Your task to perform on an android device: open app "Venmo" (install if not already installed) and go to login screen Image 0: 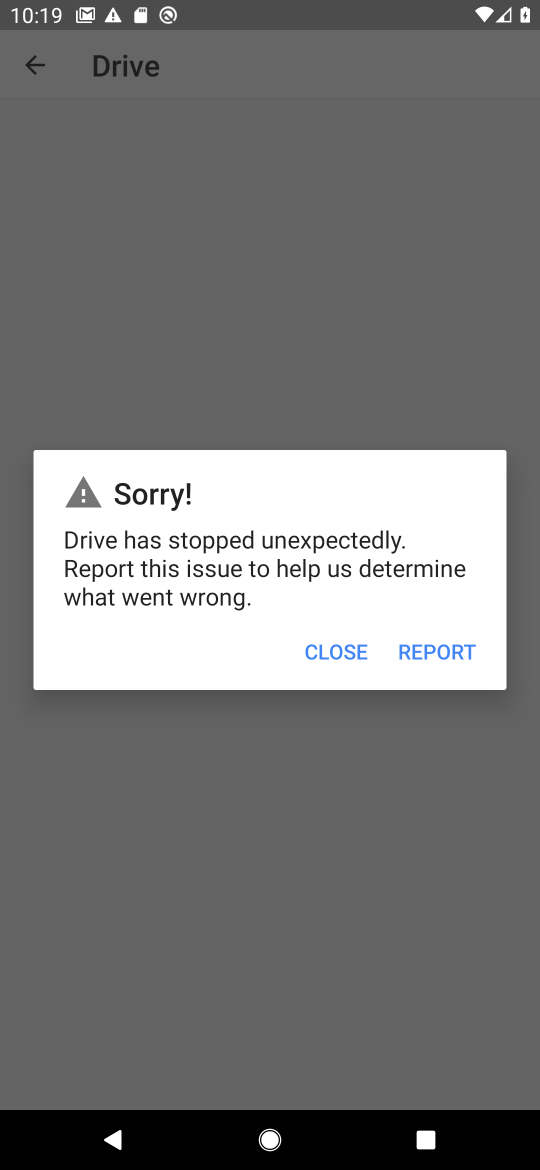
Step 0: press back button
Your task to perform on an android device: open app "Venmo" (install if not already installed) and go to login screen Image 1: 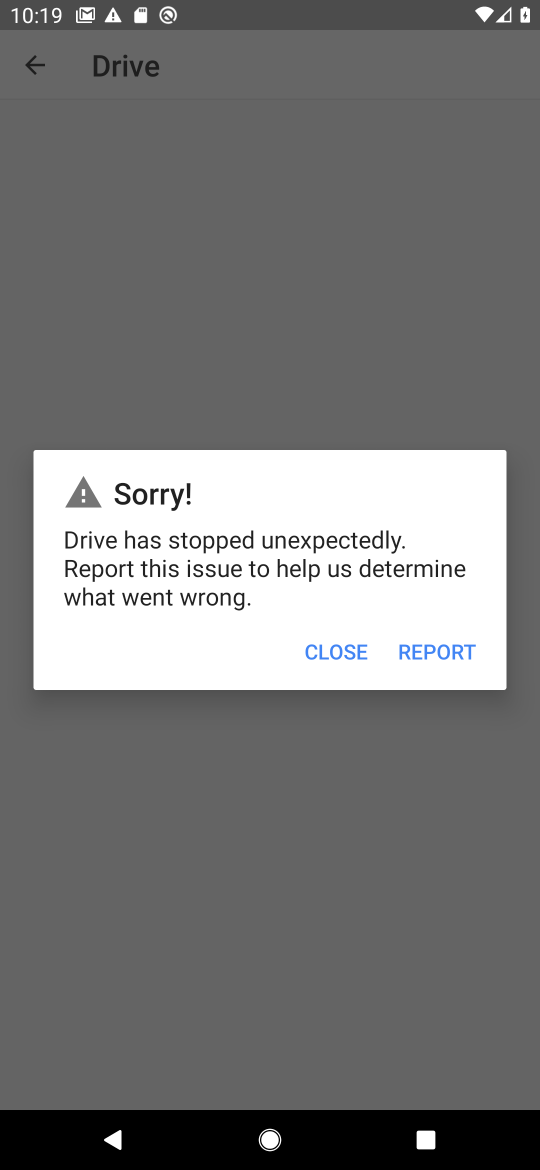
Step 1: press back button
Your task to perform on an android device: open app "Venmo" (install if not already installed) and go to login screen Image 2: 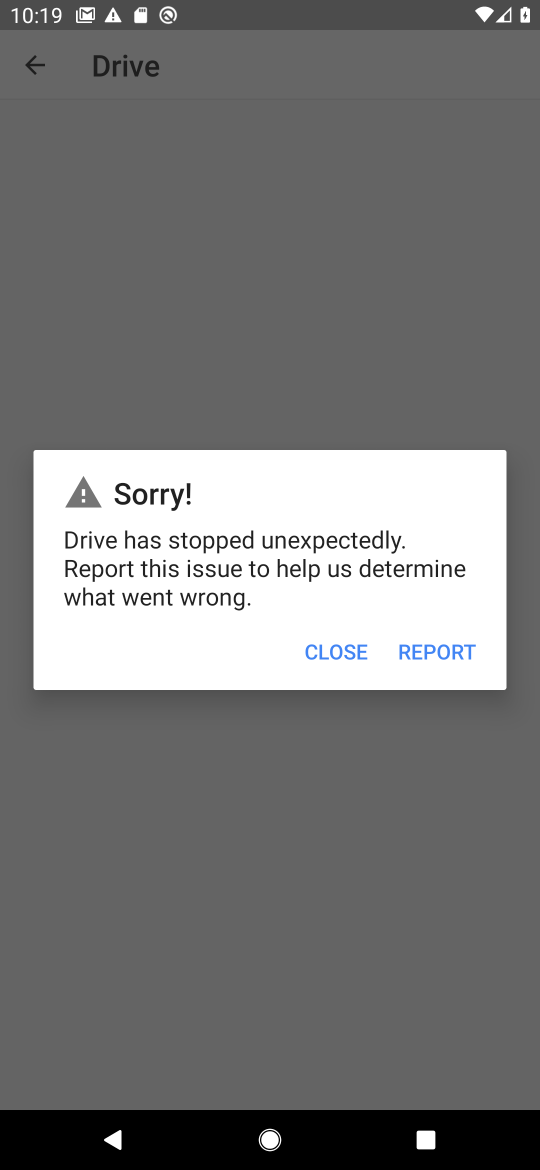
Step 2: press home button
Your task to perform on an android device: open app "Venmo" (install if not already installed) and go to login screen Image 3: 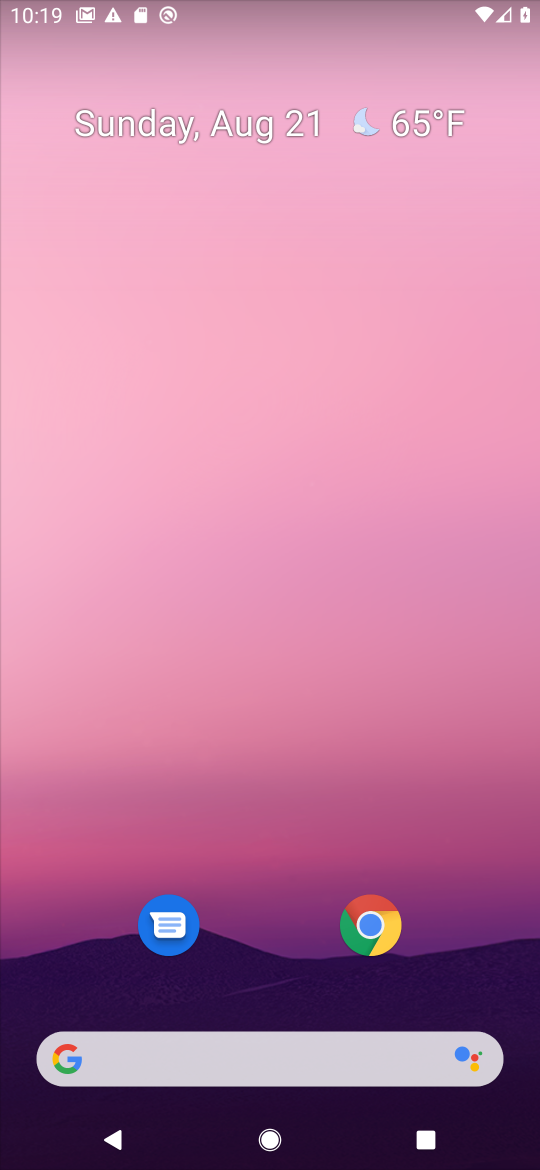
Step 3: drag from (281, 970) to (372, 94)
Your task to perform on an android device: open app "Venmo" (install if not already installed) and go to login screen Image 4: 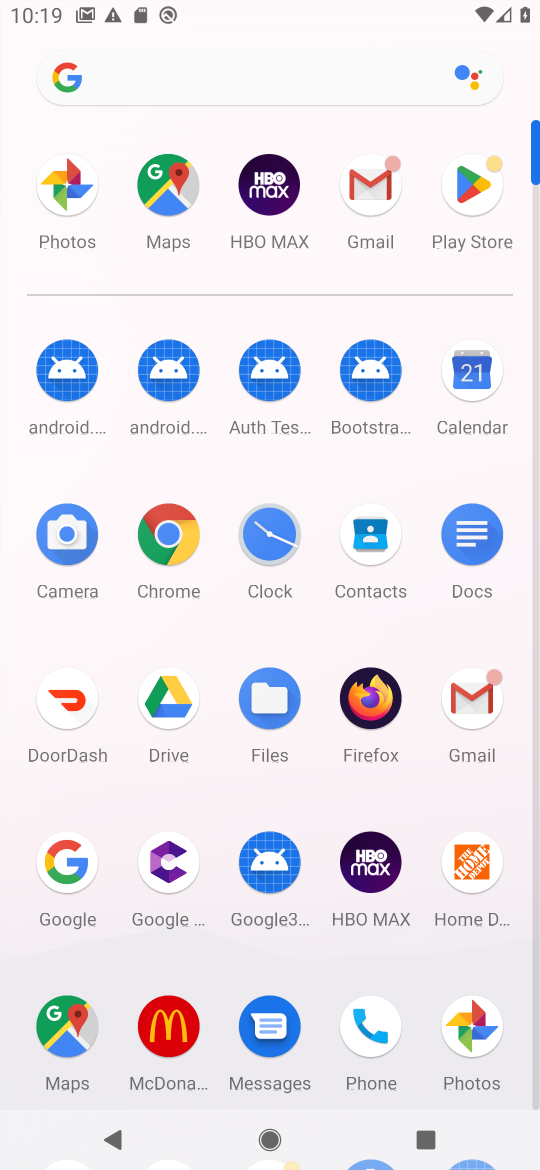
Step 4: click (464, 170)
Your task to perform on an android device: open app "Venmo" (install if not already installed) and go to login screen Image 5: 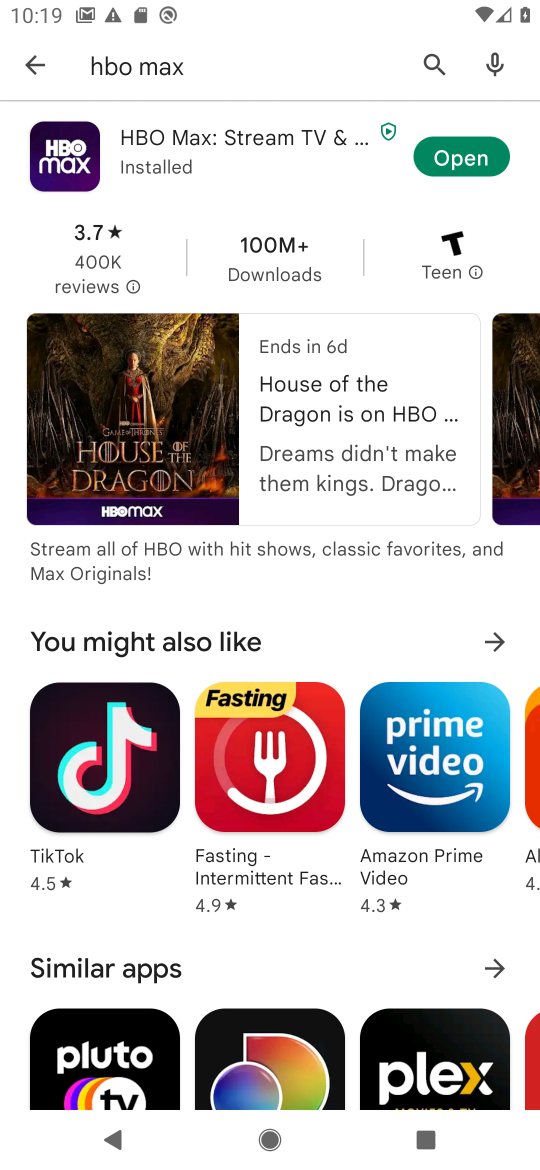
Step 5: click (429, 66)
Your task to perform on an android device: open app "Venmo" (install if not already installed) and go to login screen Image 6: 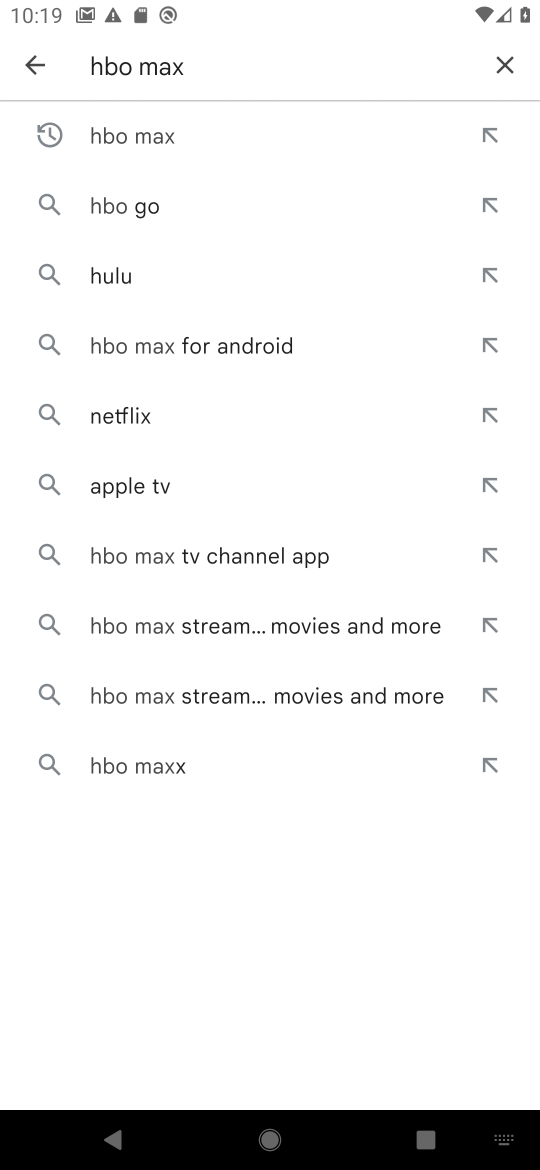
Step 6: click (516, 66)
Your task to perform on an android device: open app "Venmo" (install if not already installed) and go to login screen Image 7: 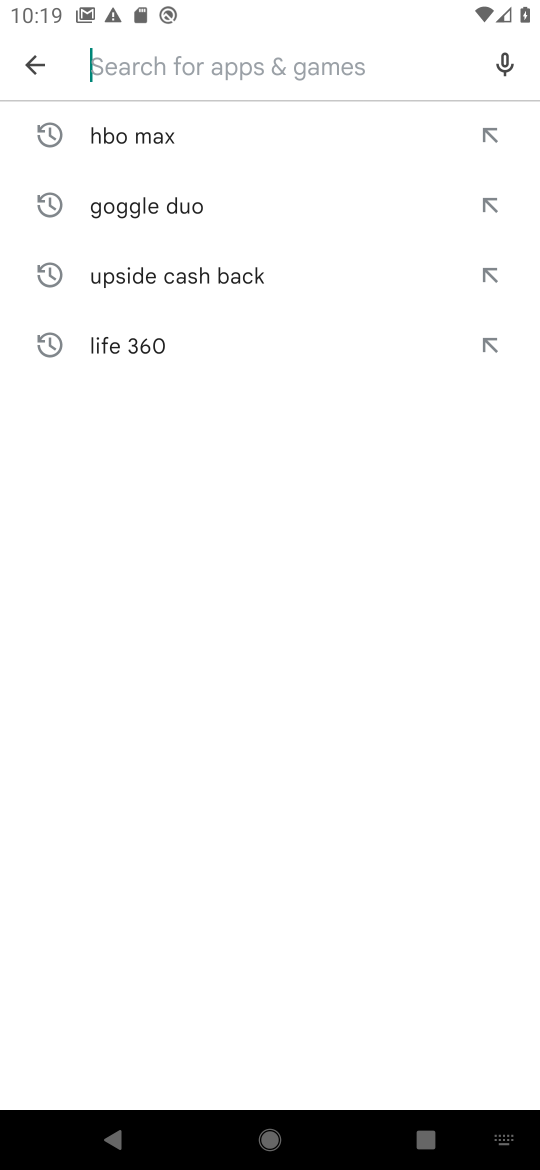
Step 7: click (215, 65)
Your task to perform on an android device: open app "Venmo" (install if not already installed) and go to login screen Image 8: 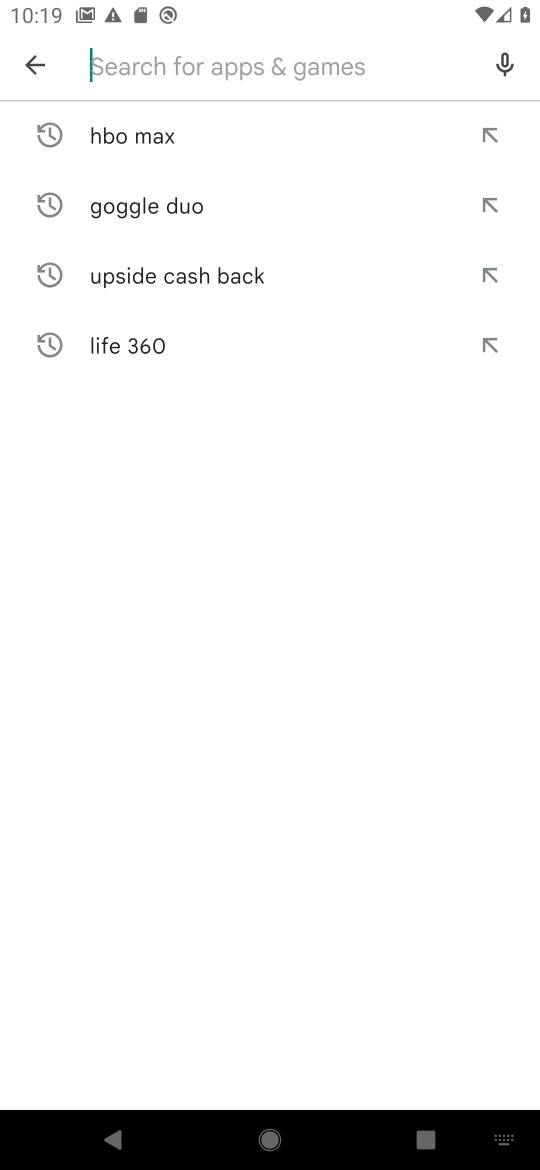
Step 8: type "venmo"
Your task to perform on an android device: open app "Venmo" (install if not already installed) and go to login screen Image 9: 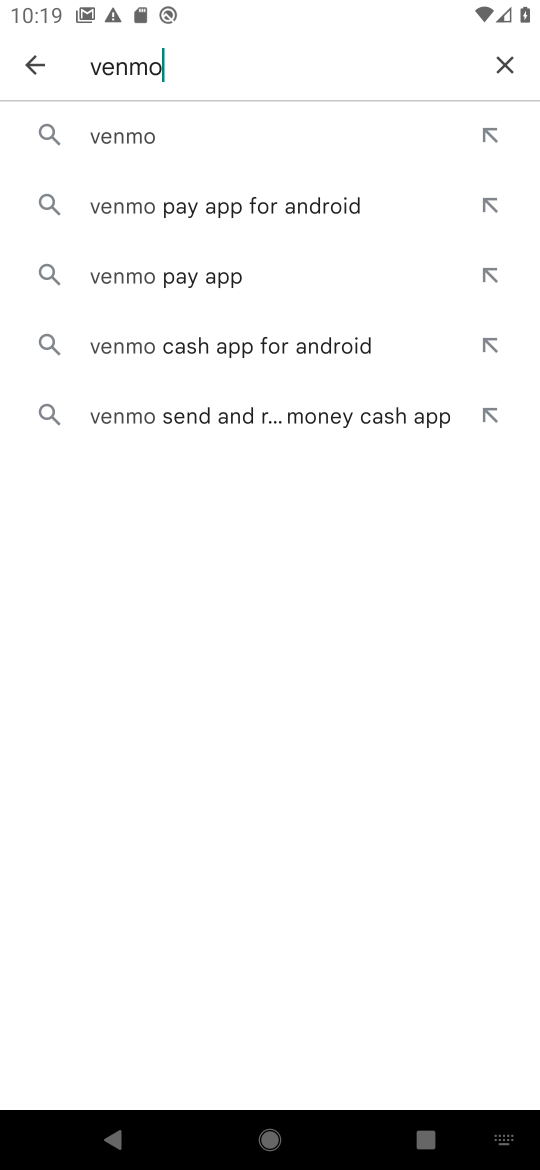
Step 9: click (172, 117)
Your task to perform on an android device: open app "Venmo" (install if not already installed) and go to login screen Image 10: 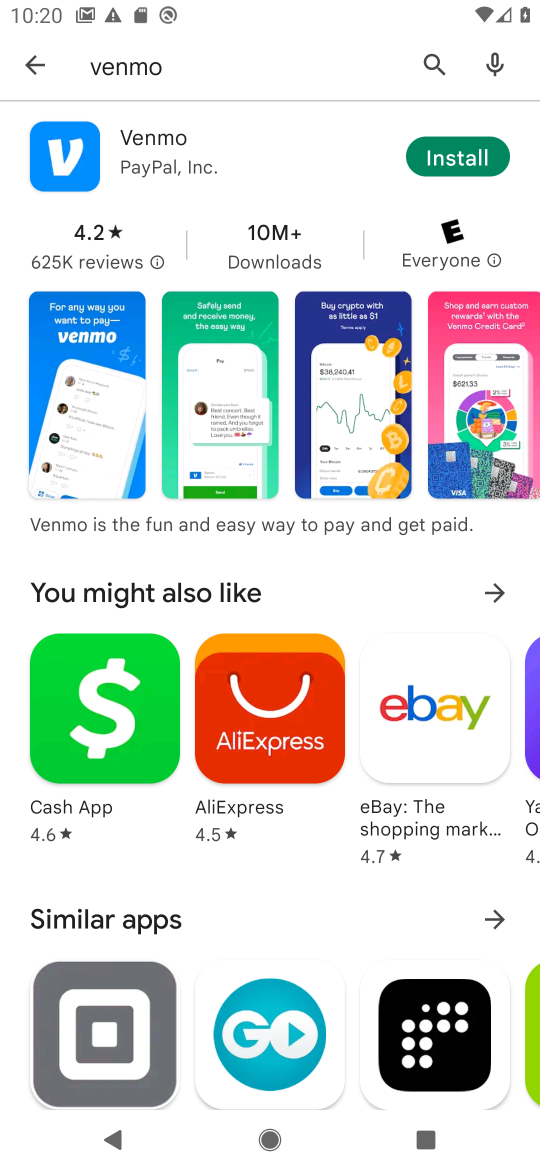
Step 10: click (464, 153)
Your task to perform on an android device: open app "Venmo" (install if not already installed) and go to login screen Image 11: 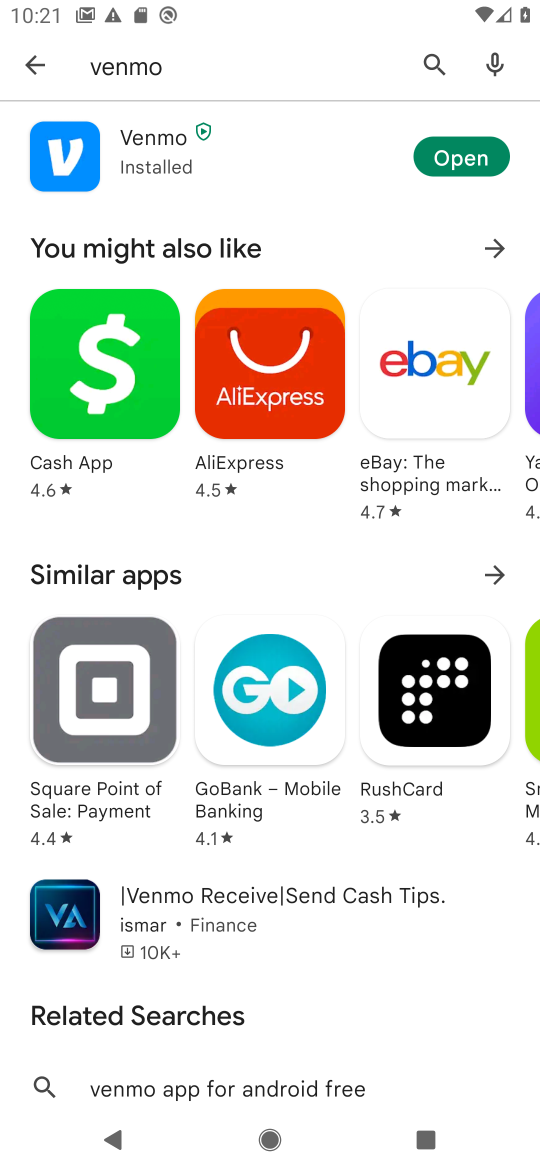
Step 11: click (460, 165)
Your task to perform on an android device: open app "Venmo" (install if not already installed) and go to login screen Image 12: 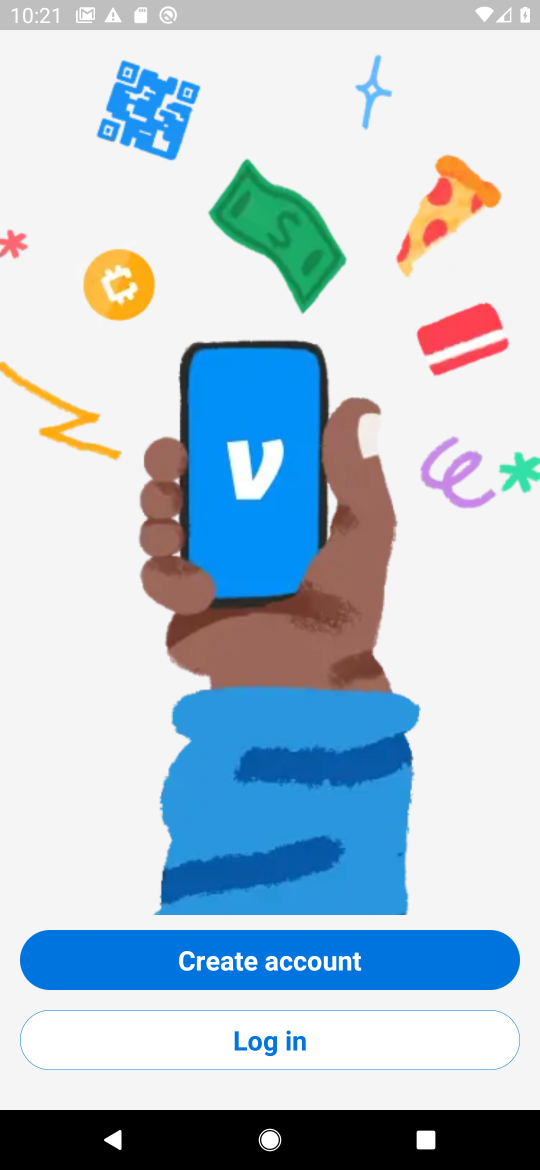
Step 12: click (228, 1030)
Your task to perform on an android device: open app "Venmo" (install if not already installed) and go to login screen Image 13: 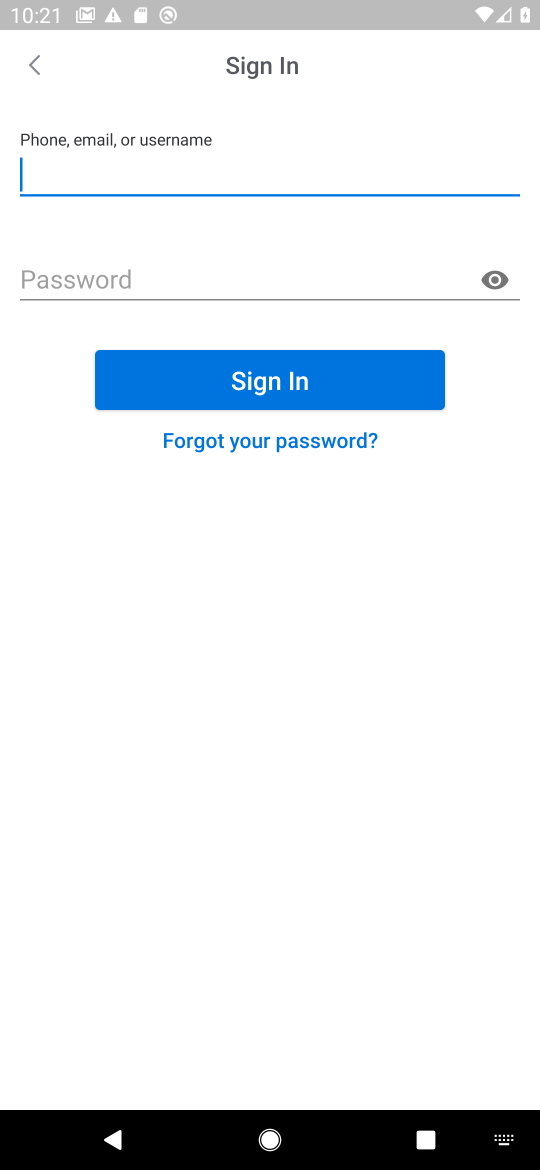
Step 13: task complete